Your task to perform on an android device: Go to settings Image 0: 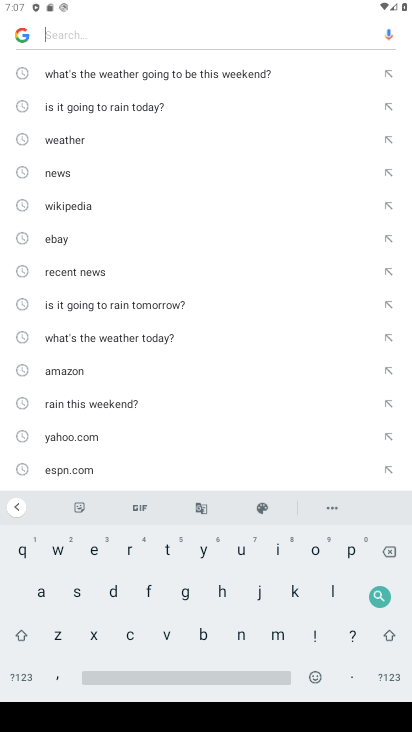
Step 0: press home button
Your task to perform on an android device: Go to settings Image 1: 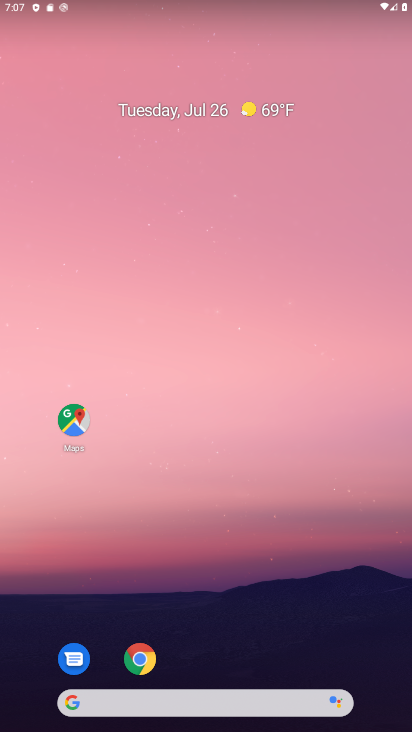
Step 1: drag from (247, 695) to (299, 157)
Your task to perform on an android device: Go to settings Image 2: 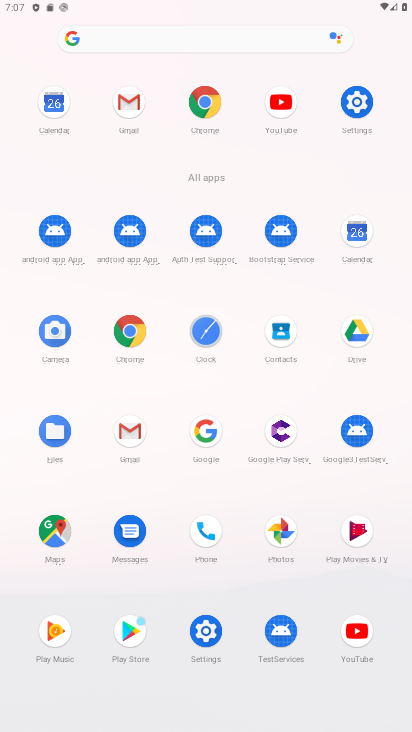
Step 2: click (354, 122)
Your task to perform on an android device: Go to settings Image 3: 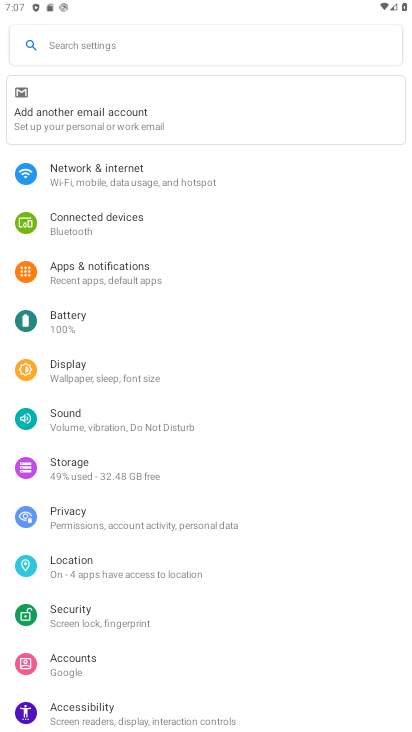
Step 3: task complete